Your task to perform on an android device: read, delete, or share a saved page in the chrome app Image 0: 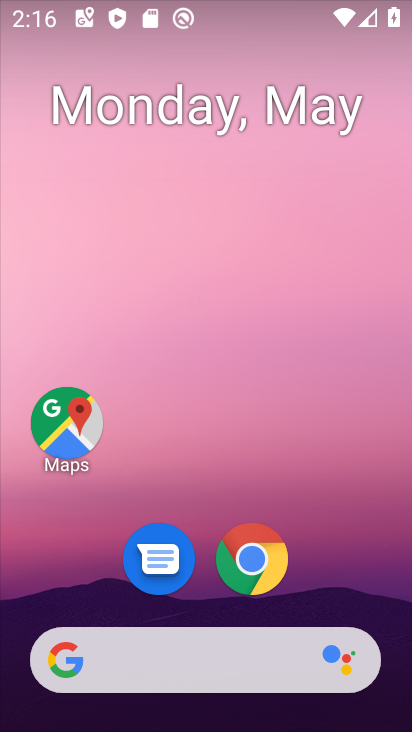
Step 0: click (270, 537)
Your task to perform on an android device: read, delete, or share a saved page in the chrome app Image 1: 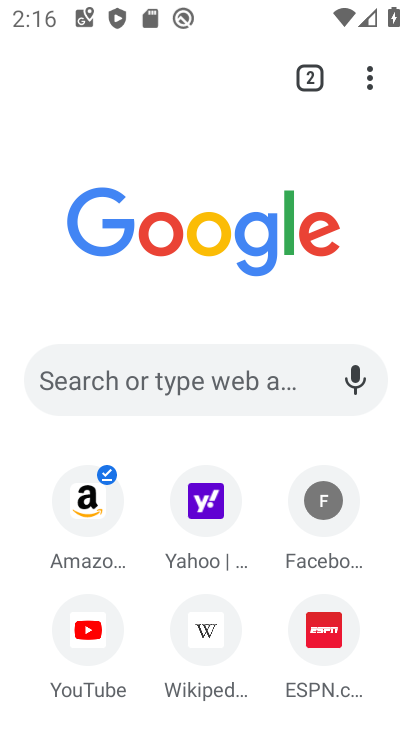
Step 1: click (365, 81)
Your task to perform on an android device: read, delete, or share a saved page in the chrome app Image 2: 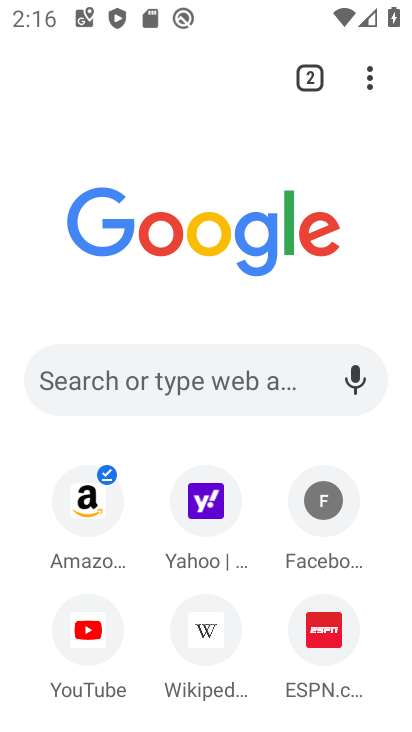
Step 2: click (379, 78)
Your task to perform on an android device: read, delete, or share a saved page in the chrome app Image 3: 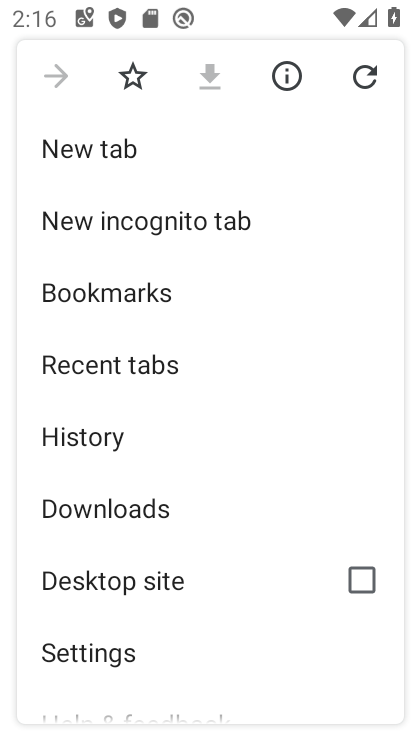
Step 3: drag from (184, 699) to (185, 275)
Your task to perform on an android device: read, delete, or share a saved page in the chrome app Image 4: 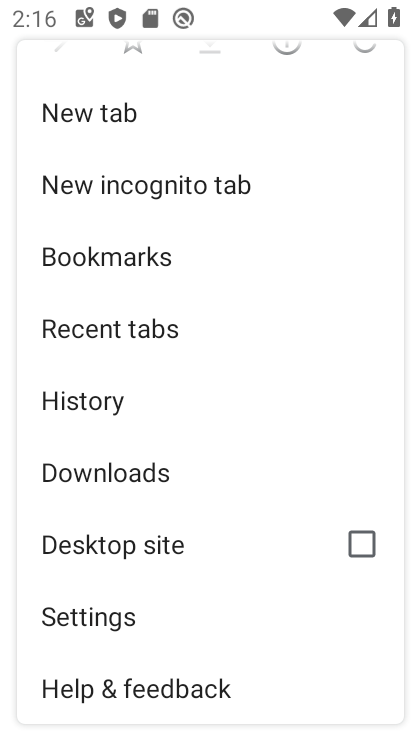
Step 4: click (200, 482)
Your task to perform on an android device: read, delete, or share a saved page in the chrome app Image 5: 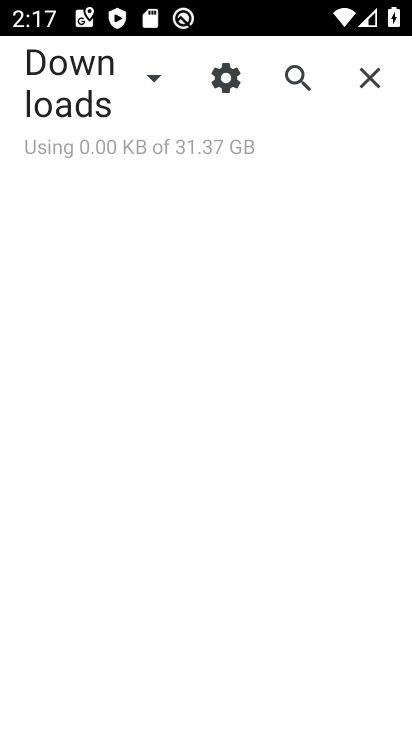
Step 5: task complete